Your task to perform on an android device: find photos in the google photos app Image 0: 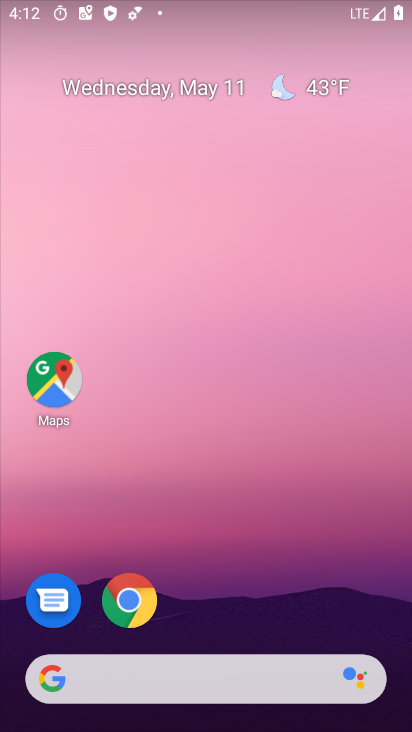
Step 0: drag from (341, 607) to (334, 1)
Your task to perform on an android device: find photos in the google photos app Image 1: 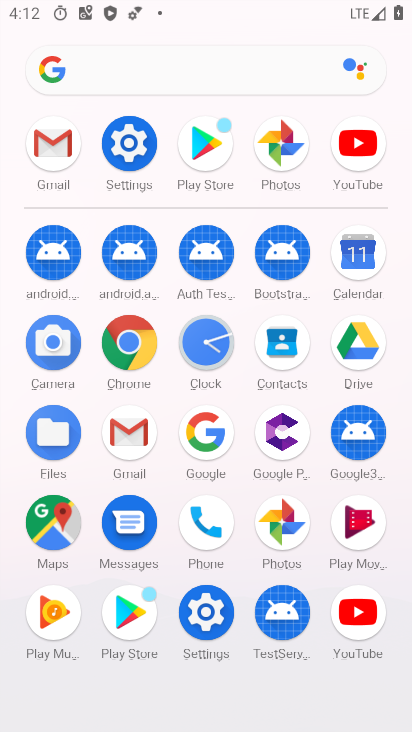
Step 1: click (272, 148)
Your task to perform on an android device: find photos in the google photos app Image 2: 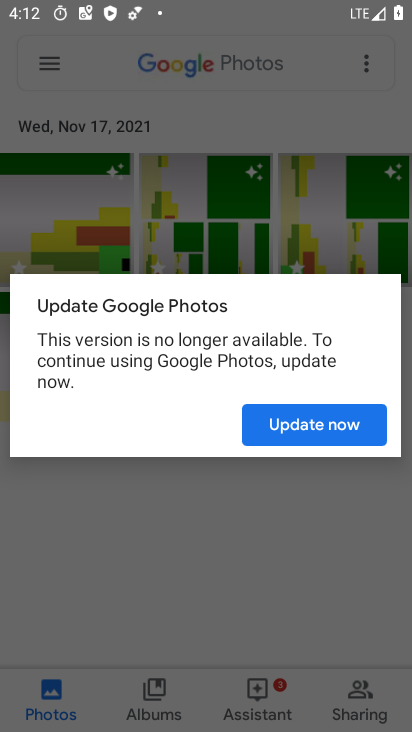
Step 2: click (327, 441)
Your task to perform on an android device: find photos in the google photos app Image 3: 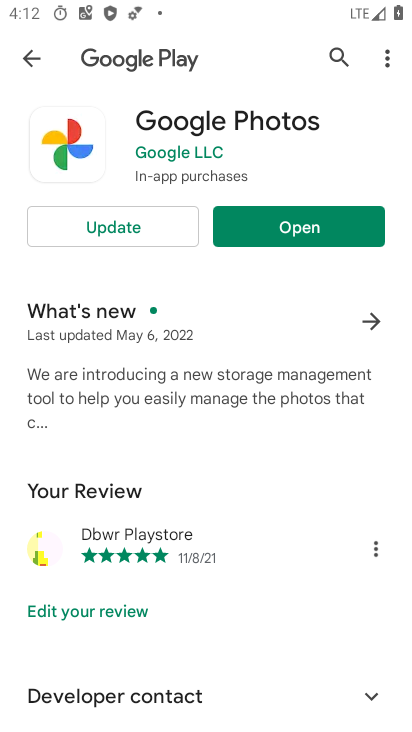
Step 3: click (264, 230)
Your task to perform on an android device: find photos in the google photos app Image 4: 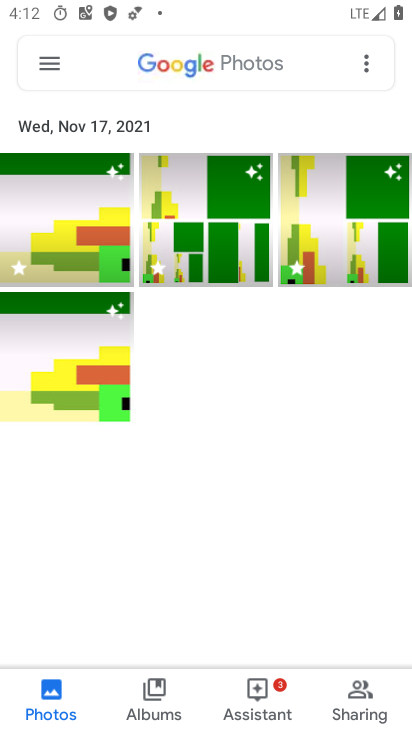
Step 4: click (35, 679)
Your task to perform on an android device: find photos in the google photos app Image 5: 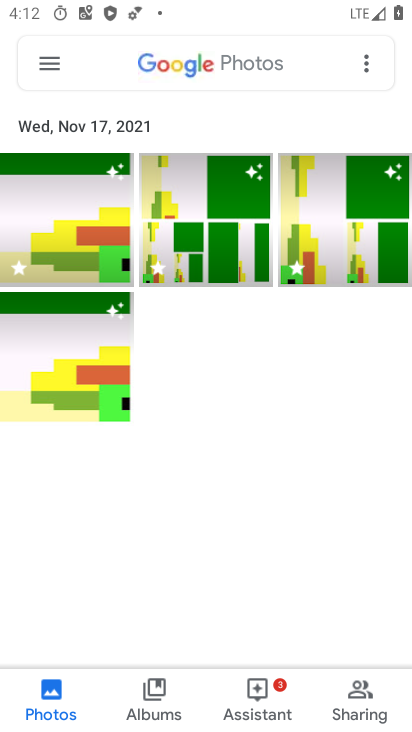
Step 5: task complete